Your task to perform on an android device: Open calendar and show me the fourth week of next month Image 0: 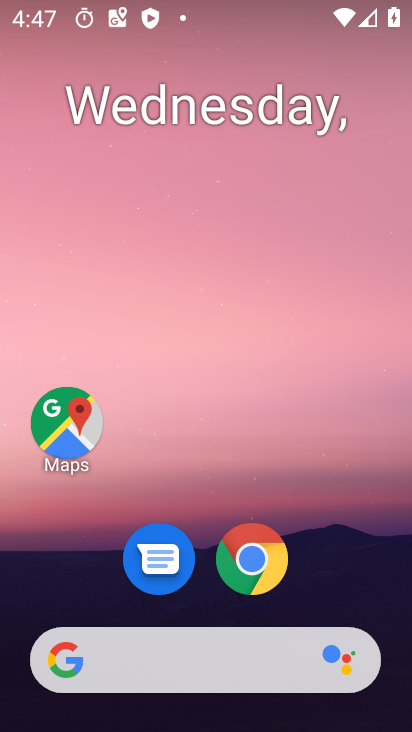
Step 0: drag from (398, 563) to (288, 38)
Your task to perform on an android device: Open calendar and show me the fourth week of next month Image 1: 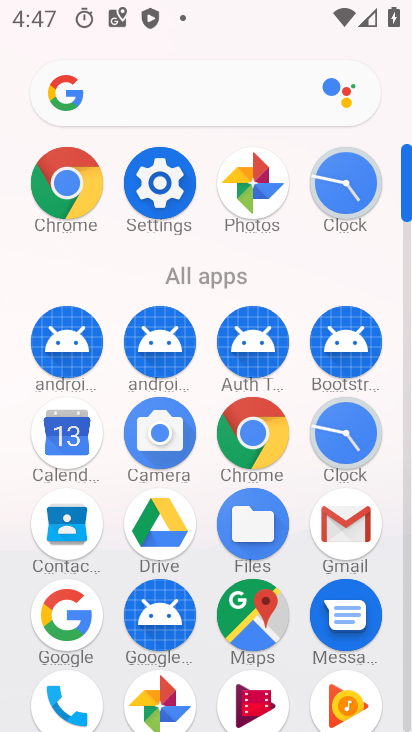
Step 1: click (52, 433)
Your task to perform on an android device: Open calendar and show me the fourth week of next month Image 2: 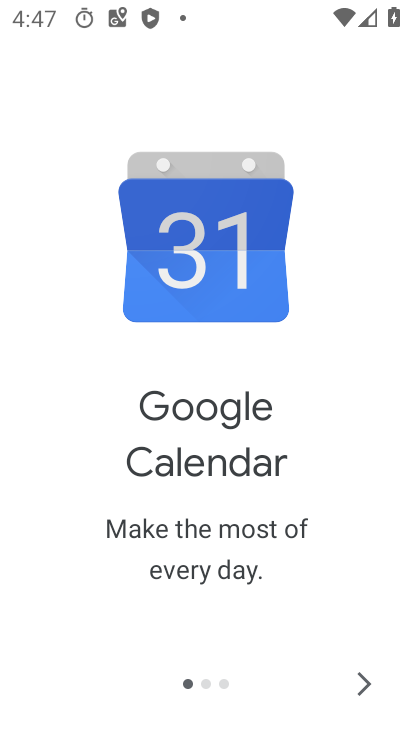
Step 2: click (361, 675)
Your task to perform on an android device: Open calendar and show me the fourth week of next month Image 3: 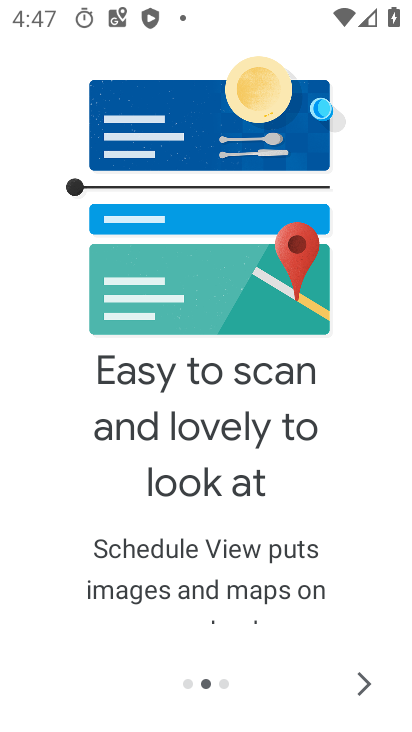
Step 3: click (361, 675)
Your task to perform on an android device: Open calendar and show me the fourth week of next month Image 4: 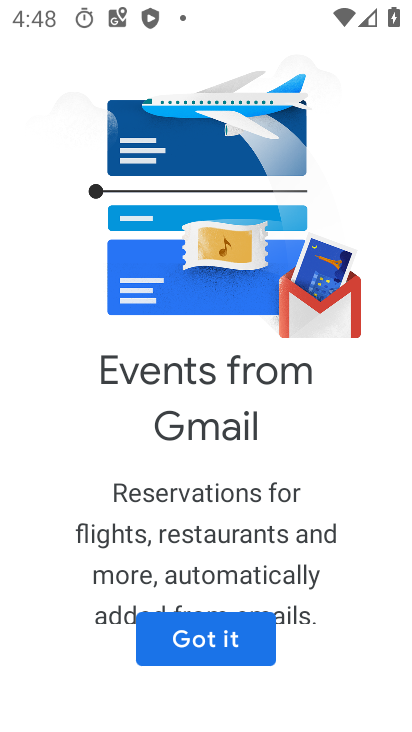
Step 4: click (246, 646)
Your task to perform on an android device: Open calendar and show me the fourth week of next month Image 5: 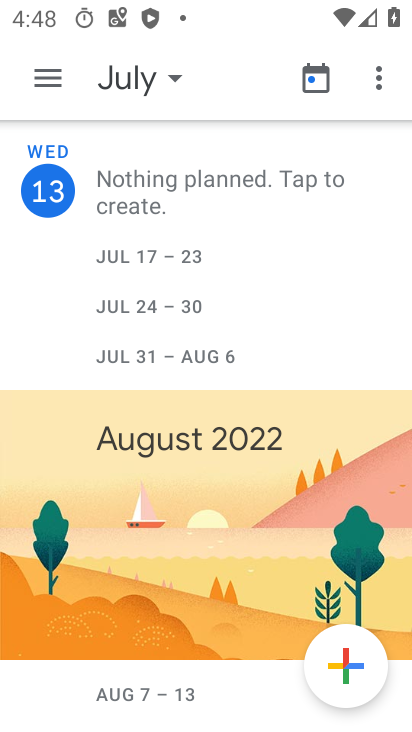
Step 5: click (48, 78)
Your task to perform on an android device: Open calendar and show me the fourth week of next month Image 6: 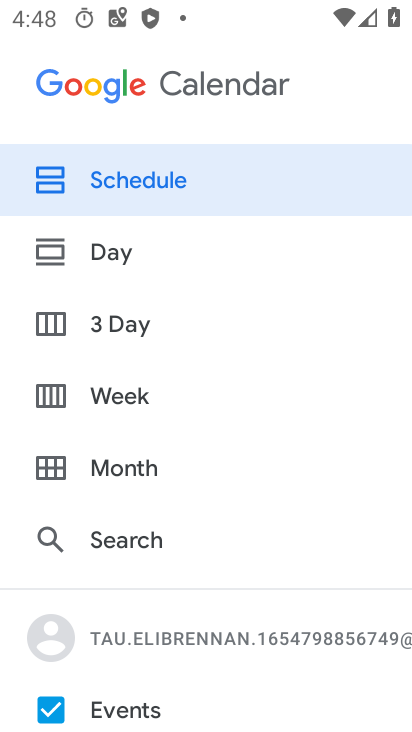
Step 6: click (169, 390)
Your task to perform on an android device: Open calendar and show me the fourth week of next month Image 7: 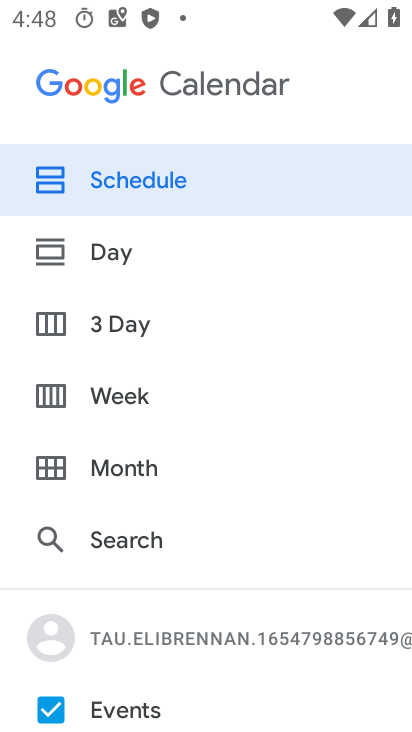
Step 7: click (101, 409)
Your task to perform on an android device: Open calendar and show me the fourth week of next month Image 8: 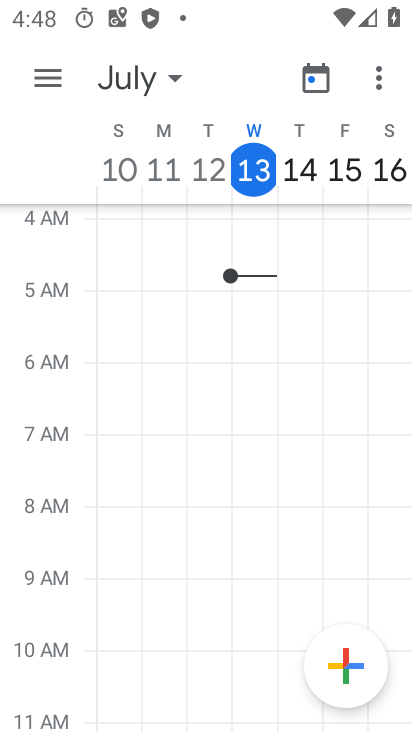
Step 8: click (158, 84)
Your task to perform on an android device: Open calendar and show me the fourth week of next month Image 9: 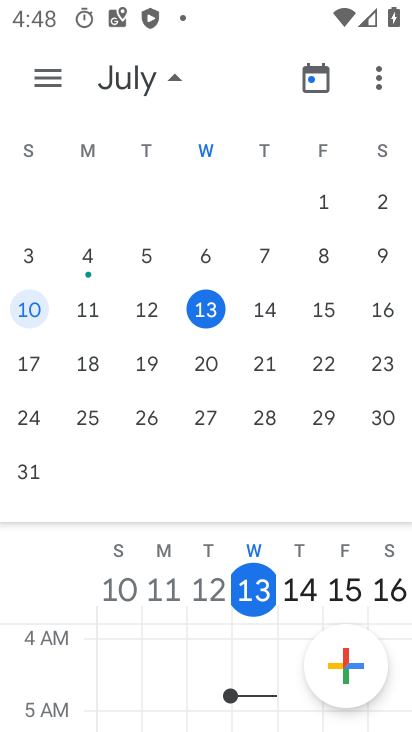
Step 9: drag from (396, 334) to (31, 340)
Your task to perform on an android device: Open calendar and show me the fourth week of next month Image 10: 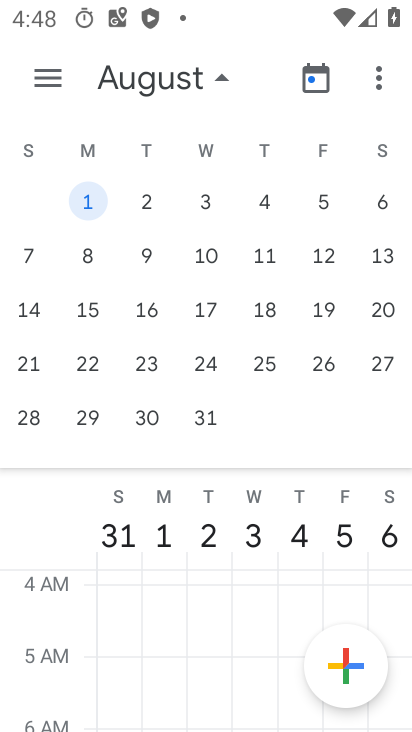
Step 10: click (194, 368)
Your task to perform on an android device: Open calendar and show me the fourth week of next month Image 11: 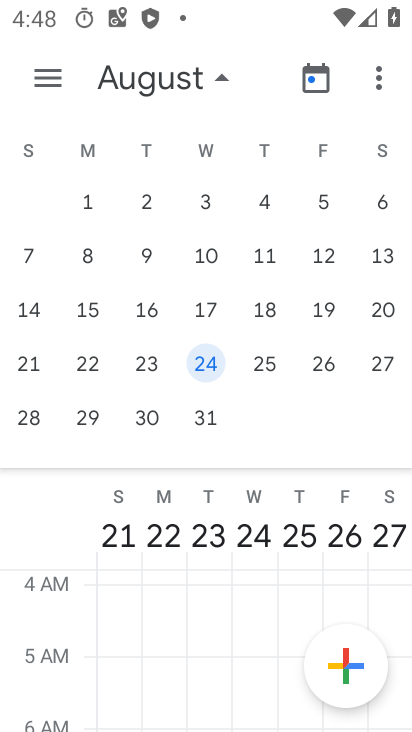
Step 11: task complete